Your task to perform on an android device: Open Amazon Image 0: 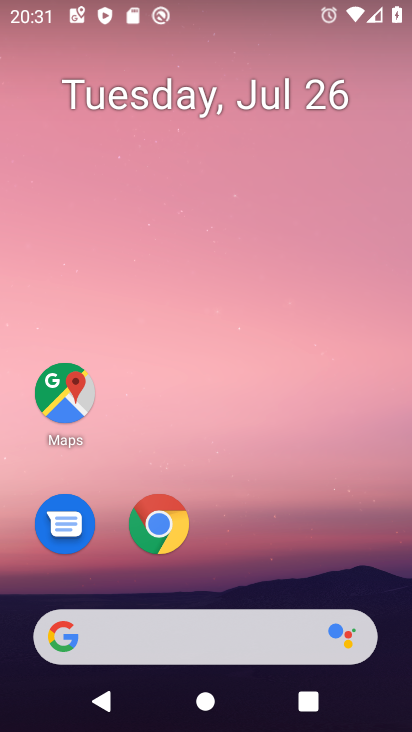
Step 0: click (166, 522)
Your task to perform on an android device: Open Amazon Image 1: 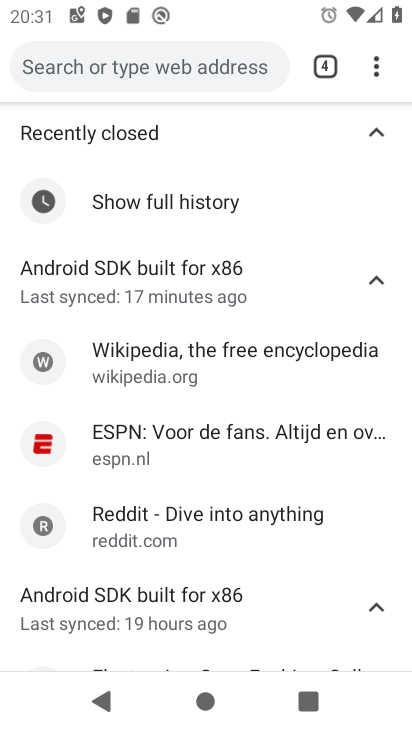
Step 1: click (325, 65)
Your task to perform on an android device: Open Amazon Image 2: 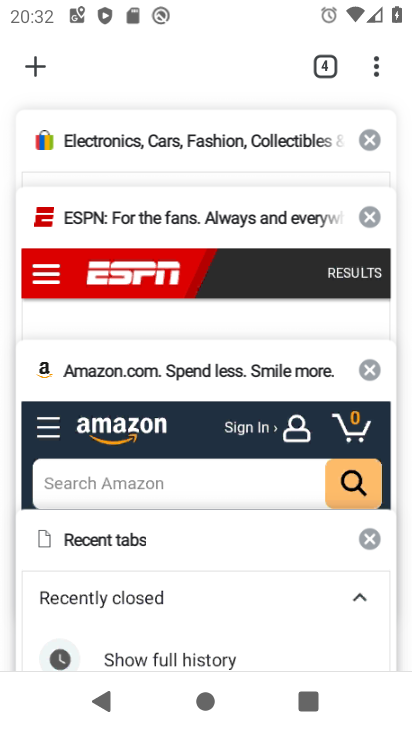
Step 2: click (250, 440)
Your task to perform on an android device: Open Amazon Image 3: 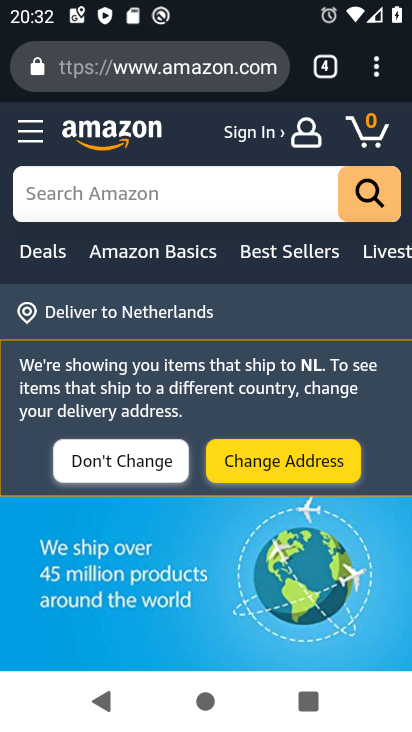
Step 3: task complete